Your task to perform on an android device: allow cookies in the chrome app Image 0: 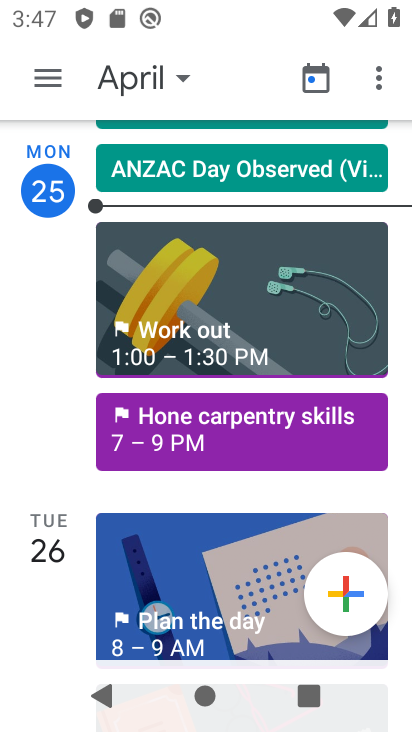
Step 0: press home button
Your task to perform on an android device: allow cookies in the chrome app Image 1: 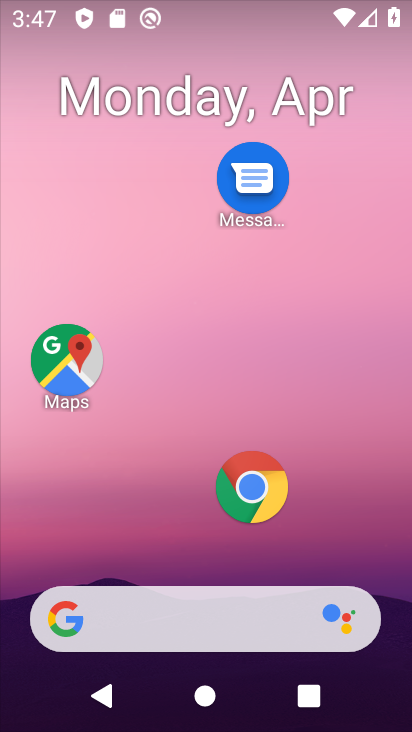
Step 1: click (246, 486)
Your task to perform on an android device: allow cookies in the chrome app Image 2: 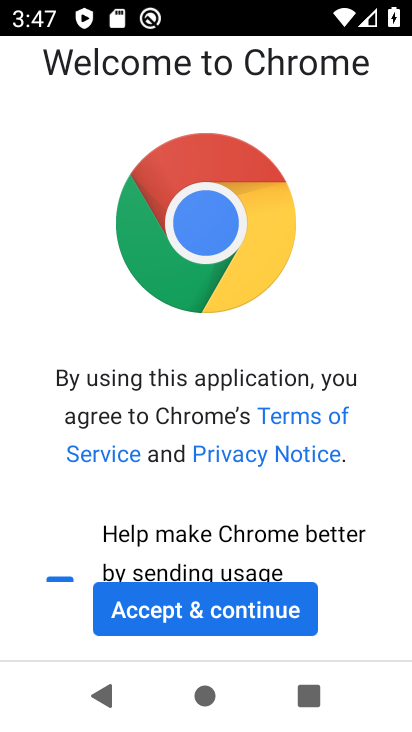
Step 2: click (234, 599)
Your task to perform on an android device: allow cookies in the chrome app Image 3: 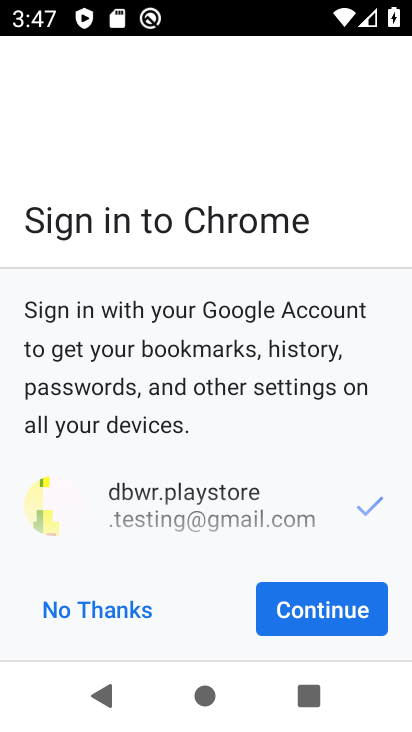
Step 3: click (319, 616)
Your task to perform on an android device: allow cookies in the chrome app Image 4: 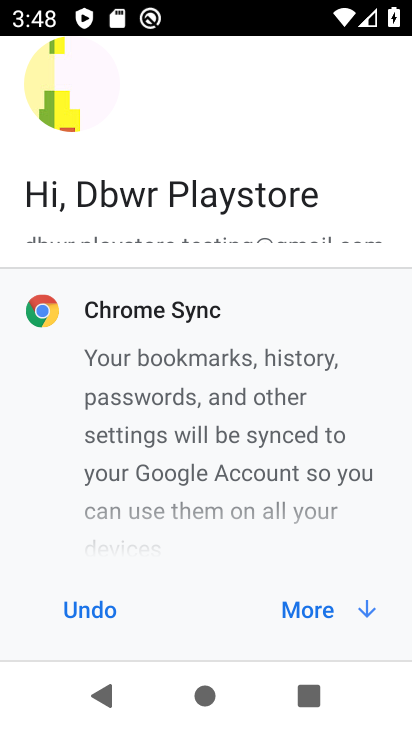
Step 4: click (319, 616)
Your task to perform on an android device: allow cookies in the chrome app Image 5: 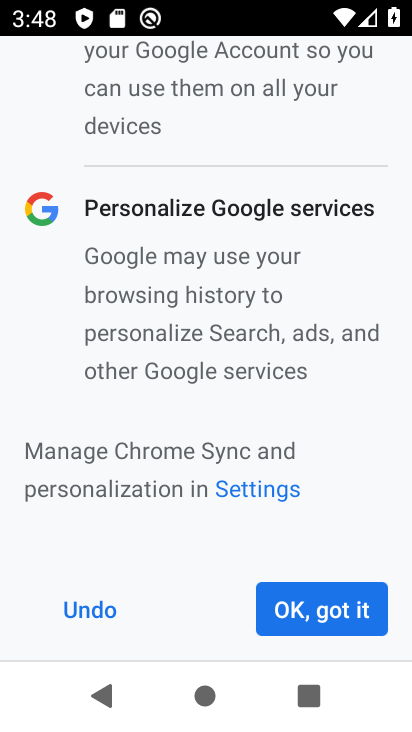
Step 5: click (319, 616)
Your task to perform on an android device: allow cookies in the chrome app Image 6: 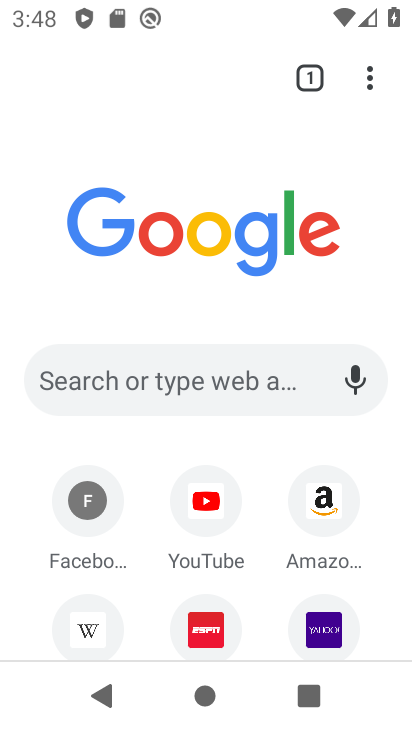
Step 6: click (372, 87)
Your task to perform on an android device: allow cookies in the chrome app Image 7: 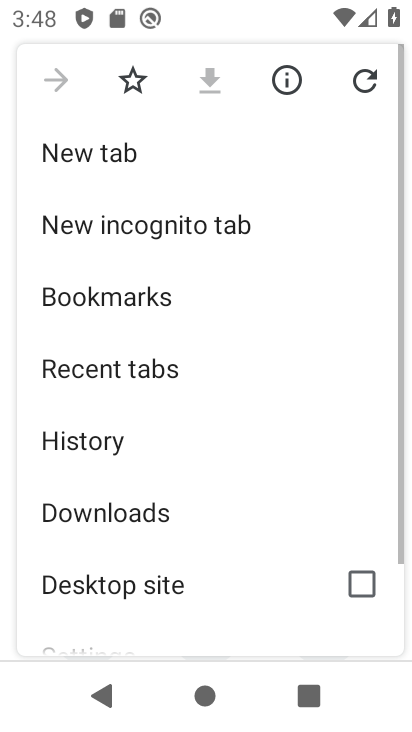
Step 7: drag from (138, 587) to (202, 221)
Your task to perform on an android device: allow cookies in the chrome app Image 8: 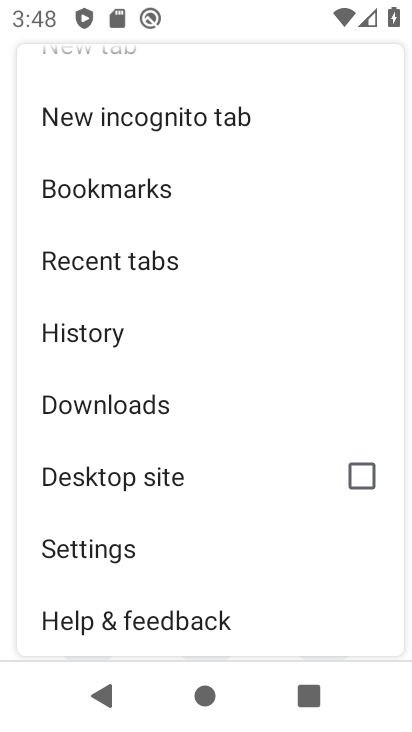
Step 8: click (107, 558)
Your task to perform on an android device: allow cookies in the chrome app Image 9: 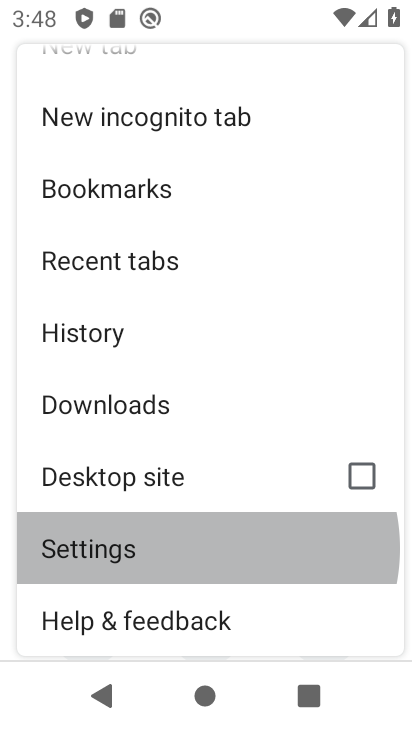
Step 9: click (108, 557)
Your task to perform on an android device: allow cookies in the chrome app Image 10: 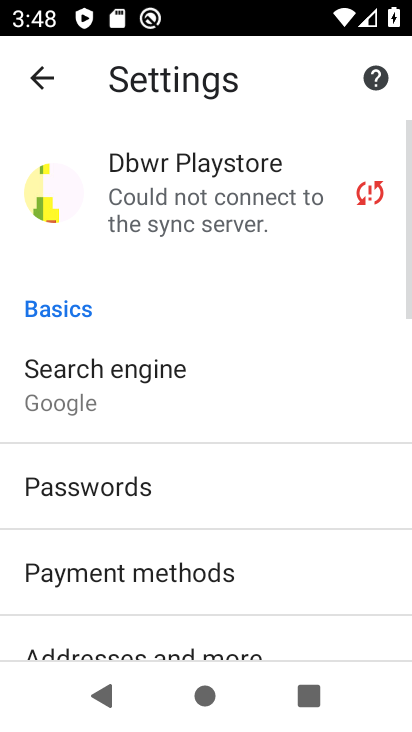
Step 10: drag from (105, 575) to (148, 329)
Your task to perform on an android device: allow cookies in the chrome app Image 11: 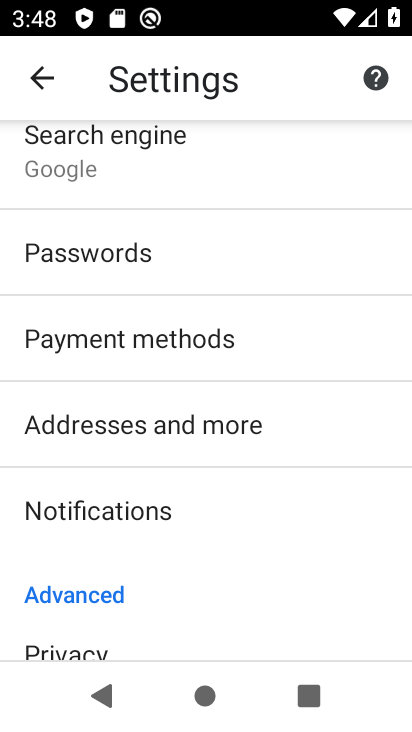
Step 11: drag from (121, 518) to (169, 335)
Your task to perform on an android device: allow cookies in the chrome app Image 12: 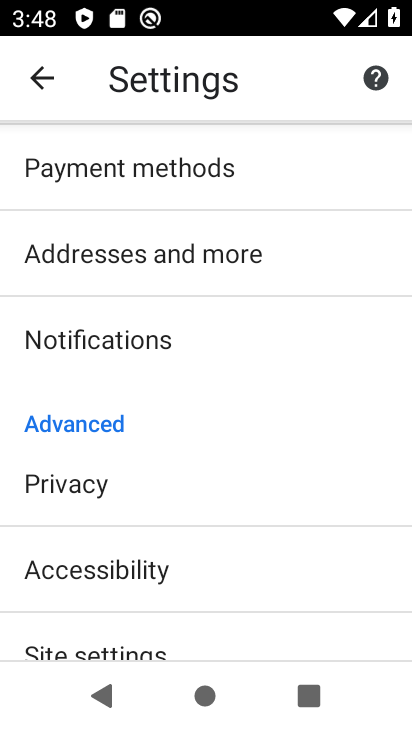
Step 12: drag from (174, 605) to (219, 407)
Your task to perform on an android device: allow cookies in the chrome app Image 13: 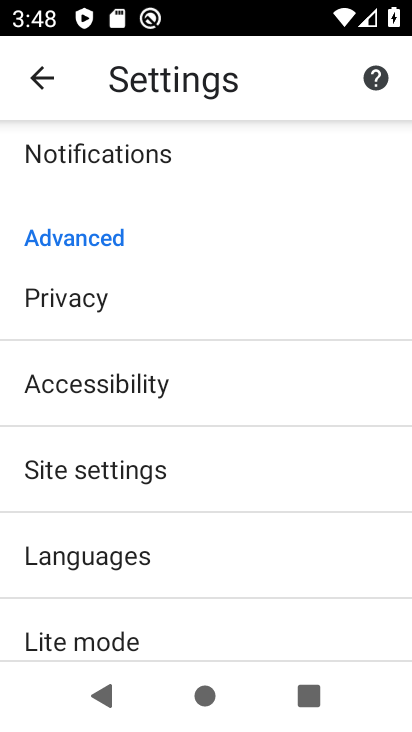
Step 13: click (128, 478)
Your task to perform on an android device: allow cookies in the chrome app Image 14: 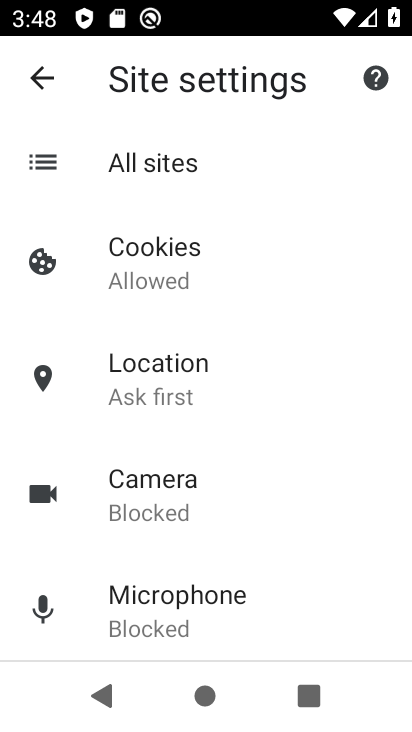
Step 14: click (176, 272)
Your task to perform on an android device: allow cookies in the chrome app Image 15: 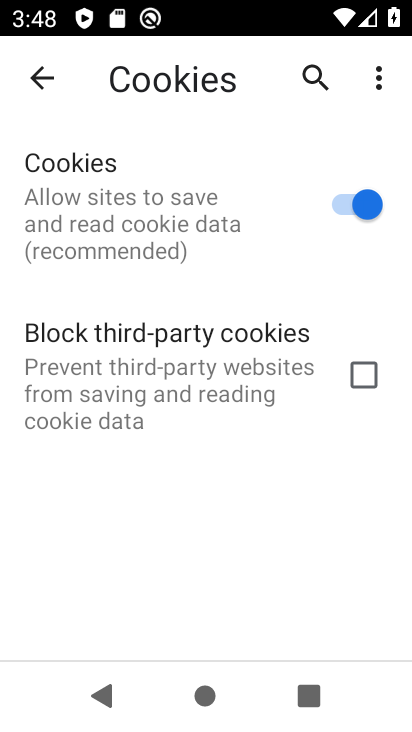
Step 15: task complete